Your task to perform on an android device: turn on showing notifications on the lock screen Image 0: 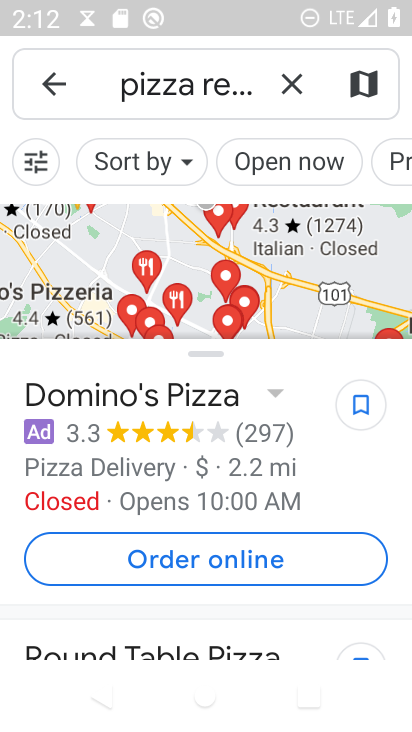
Step 0: press home button
Your task to perform on an android device: turn on showing notifications on the lock screen Image 1: 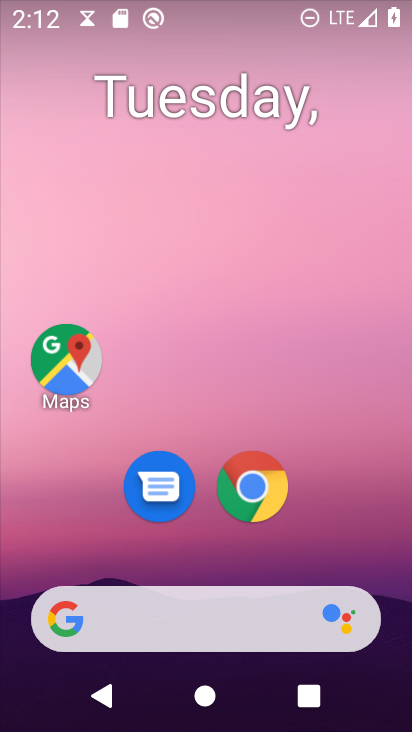
Step 1: drag from (194, 542) to (254, 146)
Your task to perform on an android device: turn on showing notifications on the lock screen Image 2: 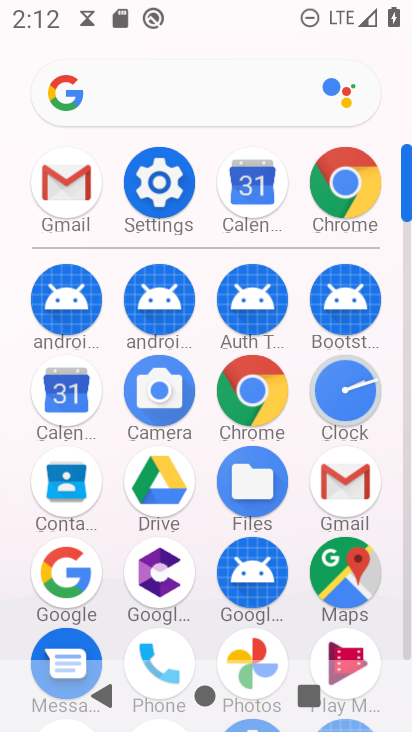
Step 2: drag from (213, 255) to (215, 43)
Your task to perform on an android device: turn on showing notifications on the lock screen Image 3: 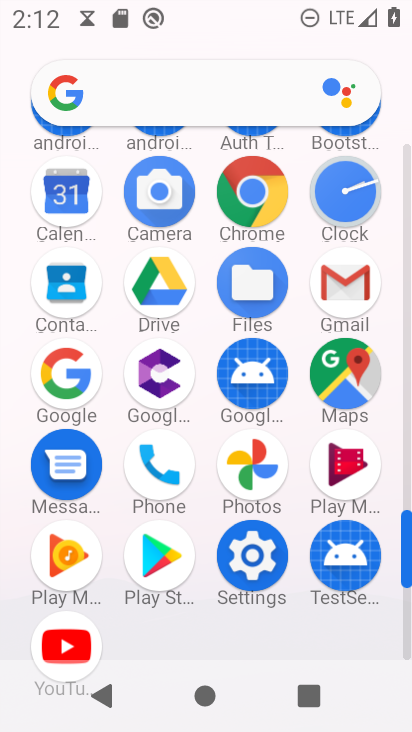
Step 3: click (247, 560)
Your task to perform on an android device: turn on showing notifications on the lock screen Image 4: 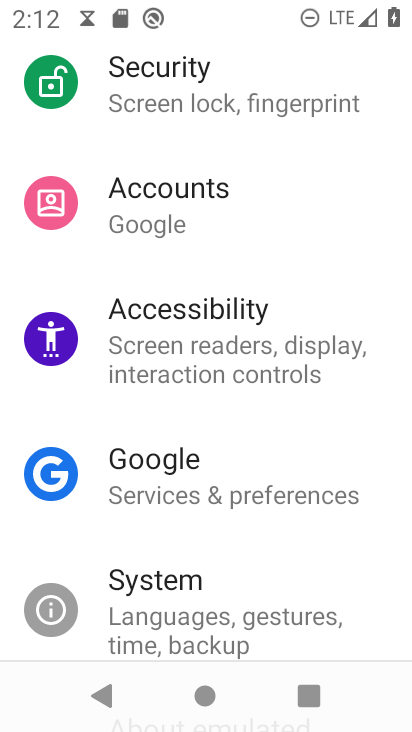
Step 4: drag from (283, 191) to (298, 547)
Your task to perform on an android device: turn on showing notifications on the lock screen Image 5: 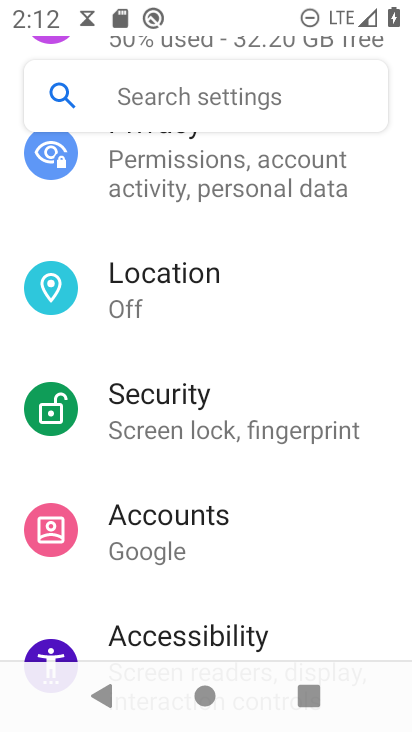
Step 5: drag from (257, 297) to (295, 610)
Your task to perform on an android device: turn on showing notifications on the lock screen Image 6: 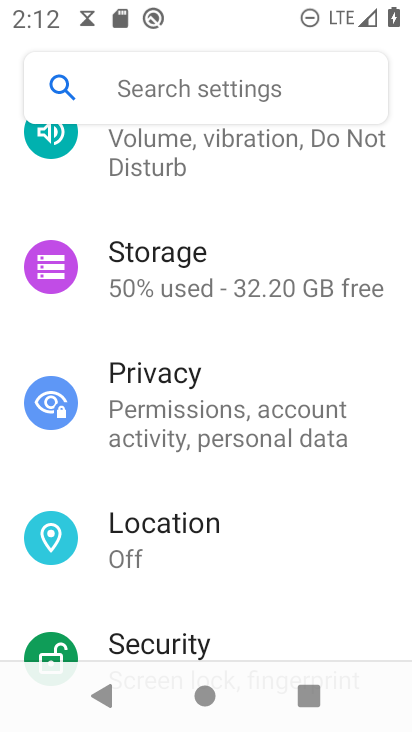
Step 6: drag from (251, 205) to (303, 625)
Your task to perform on an android device: turn on showing notifications on the lock screen Image 7: 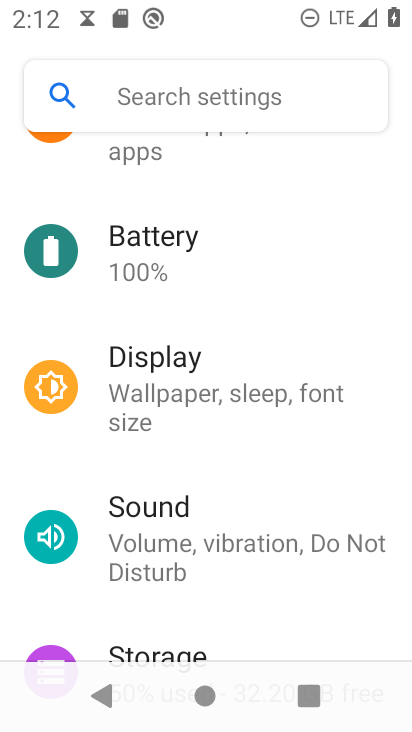
Step 7: drag from (265, 519) to (248, 708)
Your task to perform on an android device: turn on showing notifications on the lock screen Image 8: 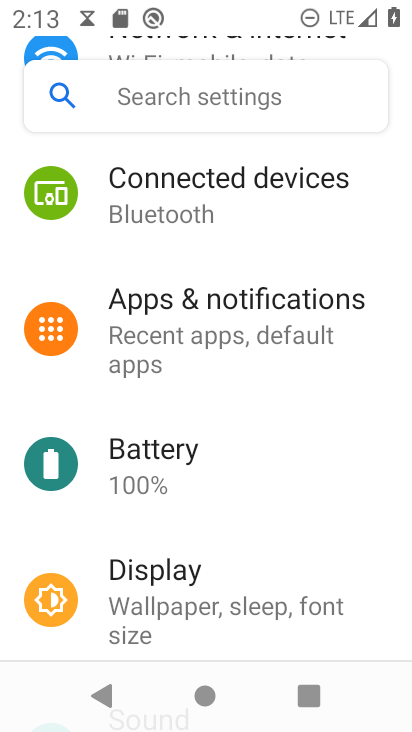
Step 8: click (284, 336)
Your task to perform on an android device: turn on showing notifications on the lock screen Image 9: 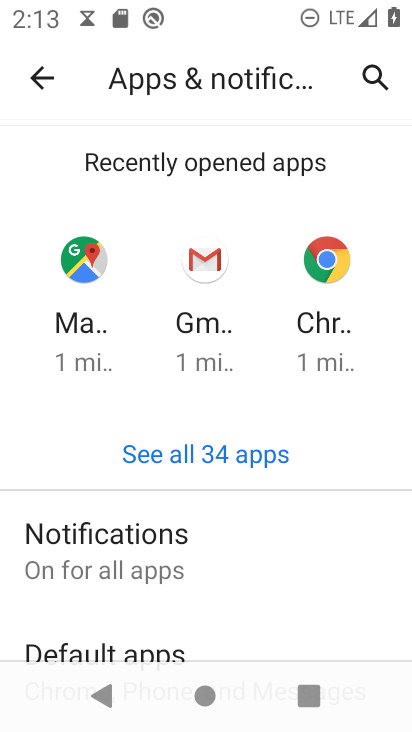
Step 9: click (157, 551)
Your task to perform on an android device: turn on showing notifications on the lock screen Image 10: 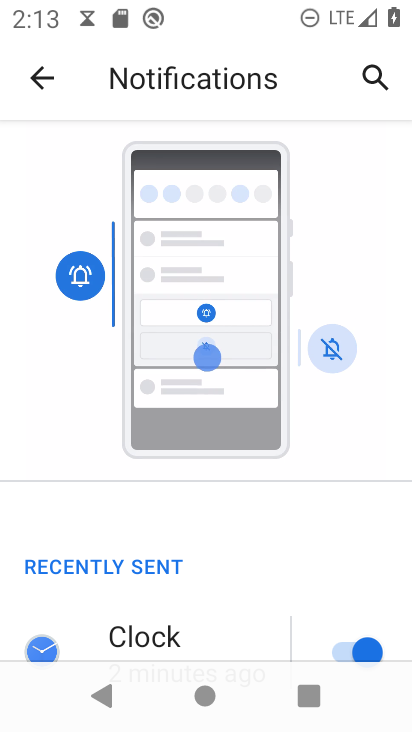
Step 10: task complete